Your task to perform on an android device: all mails in gmail Image 0: 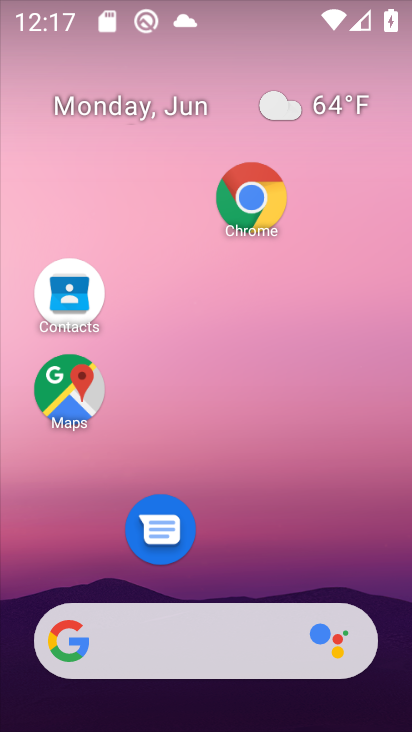
Step 0: drag from (247, 540) to (312, 1)
Your task to perform on an android device: all mails in gmail Image 1: 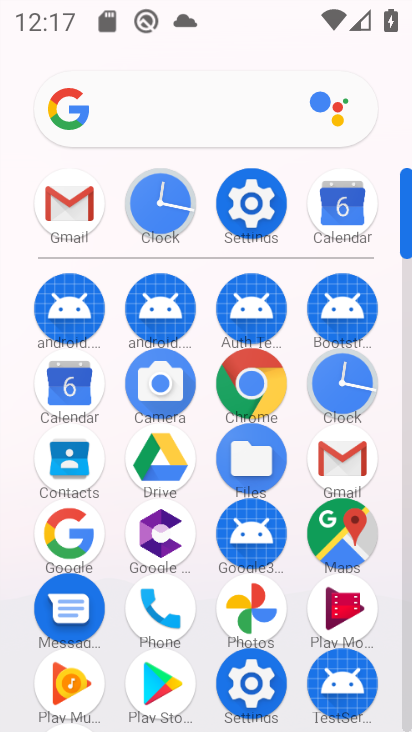
Step 1: click (332, 459)
Your task to perform on an android device: all mails in gmail Image 2: 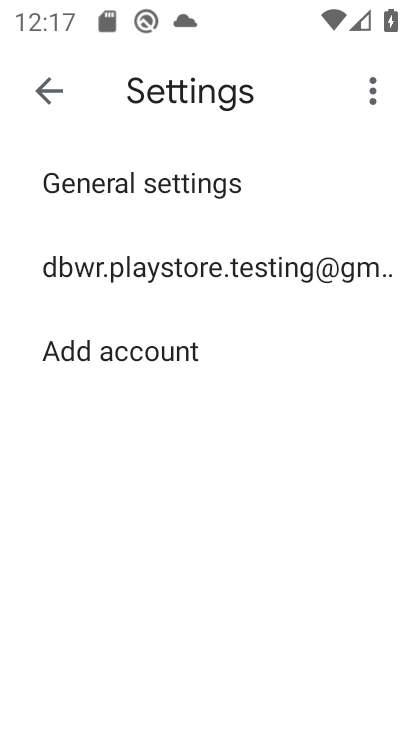
Step 2: click (42, 75)
Your task to perform on an android device: all mails in gmail Image 3: 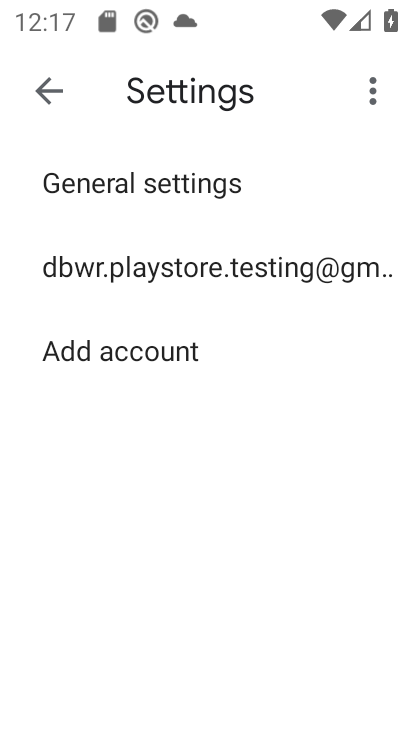
Step 3: click (43, 78)
Your task to perform on an android device: all mails in gmail Image 4: 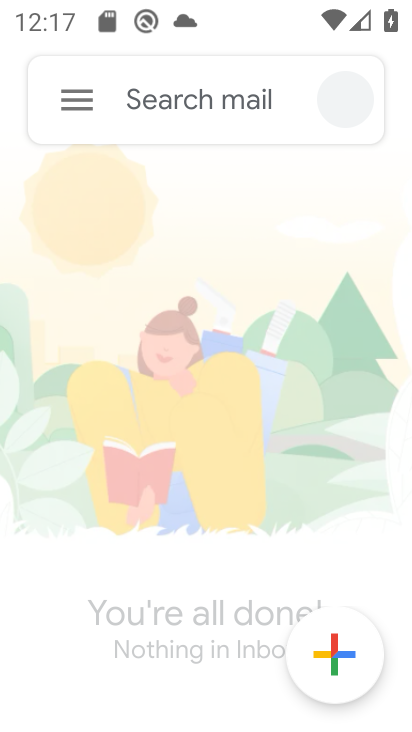
Step 4: click (89, 104)
Your task to perform on an android device: all mails in gmail Image 5: 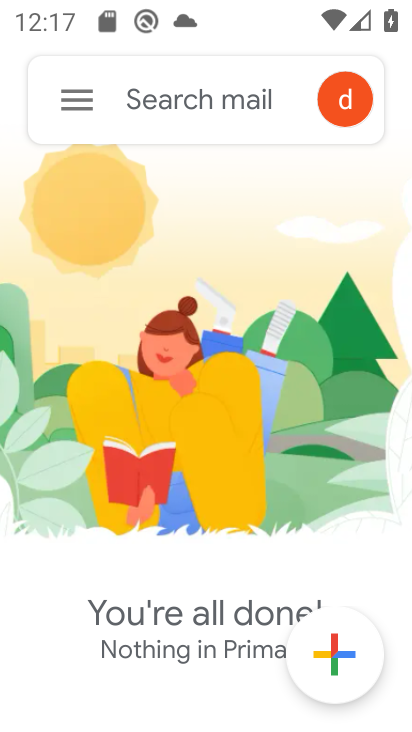
Step 5: click (71, 98)
Your task to perform on an android device: all mails in gmail Image 6: 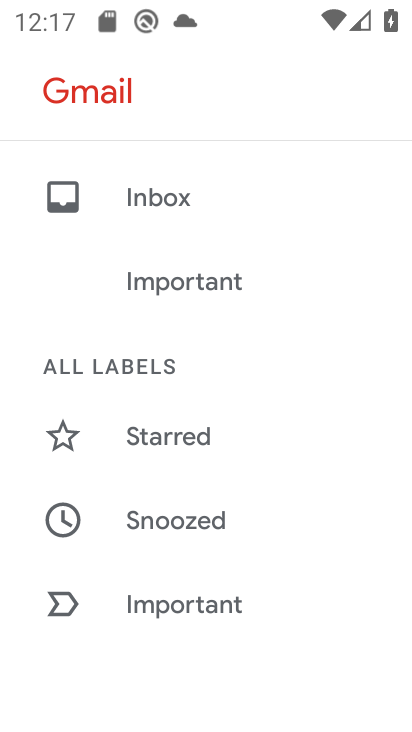
Step 6: drag from (187, 539) to (231, 185)
Your task to perform on an android device: all mails in gmail Image 7: 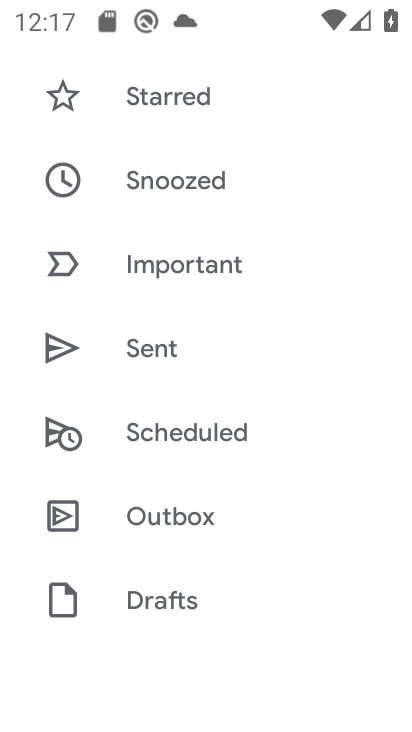
Step 7: drag from (208, 547) to (240, 222)
Your task to perform on an android device: all mails in gmail Image 8: 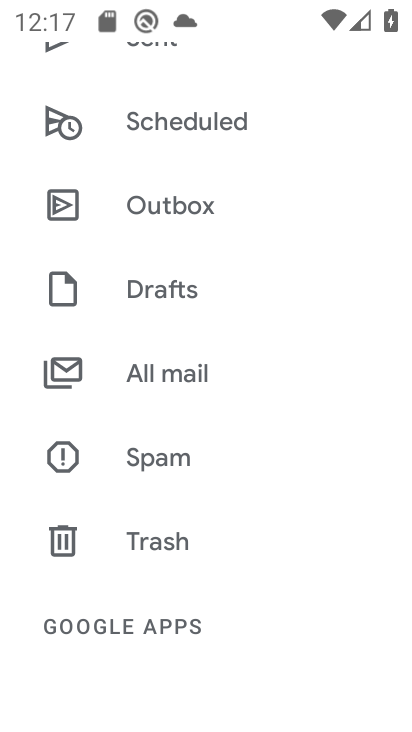
Step 8: click (180, 362)
Your task to perform on an android device: all mails in gmail Image 9: 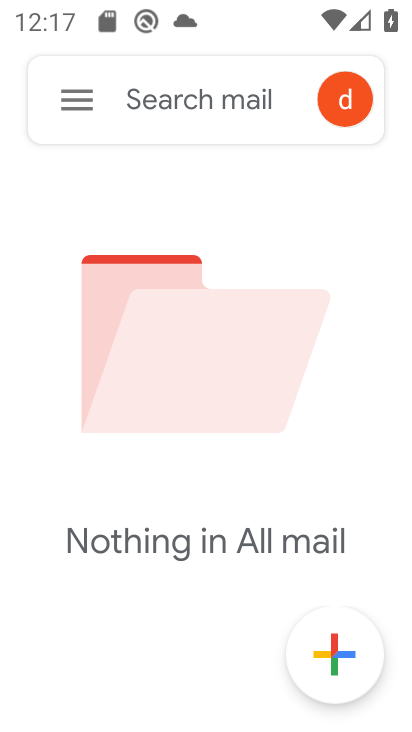
Step 9: task complete